Your task to perform on an android device: check the backup settings in the google photos Image 0: 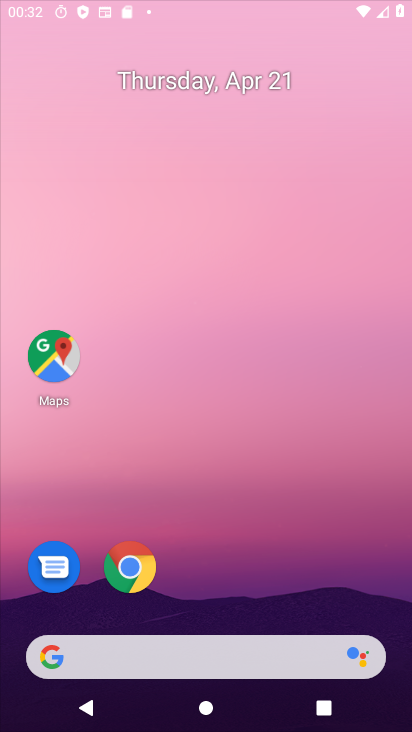
Step 0: drag from (215, 452) to (246, 172)
Your task to perform on an android device: check the backup settings in the google photos Image 1: 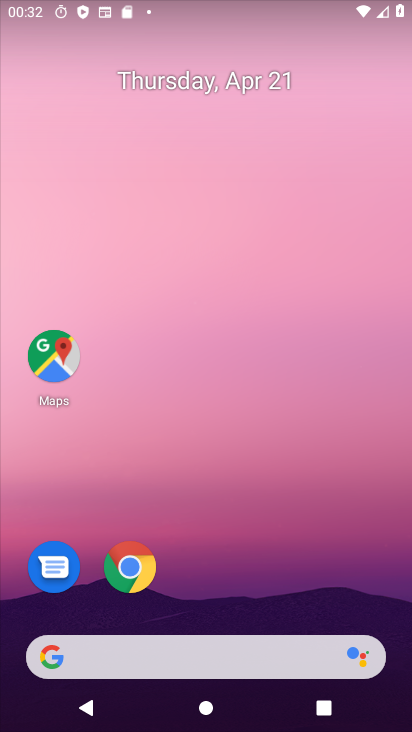
Step 1: drag from (239, 586) to (274, 116)
Your task to perform on an android device: check the backup settings in the google photos Image 2: 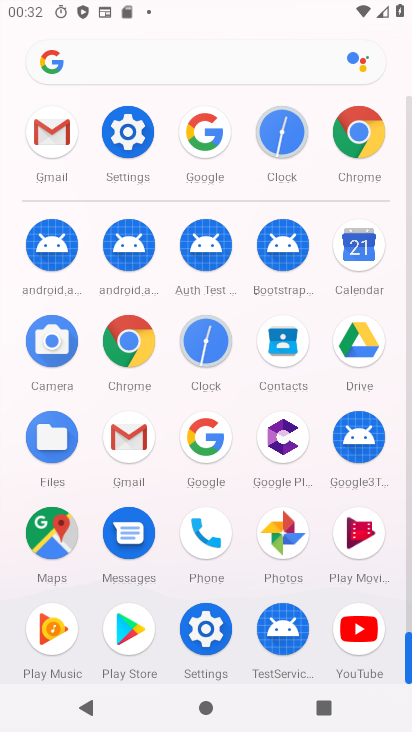
Step 2: click (287, 528)
Your task to perform on an android device: check the backup settings in the google photos Image 3: 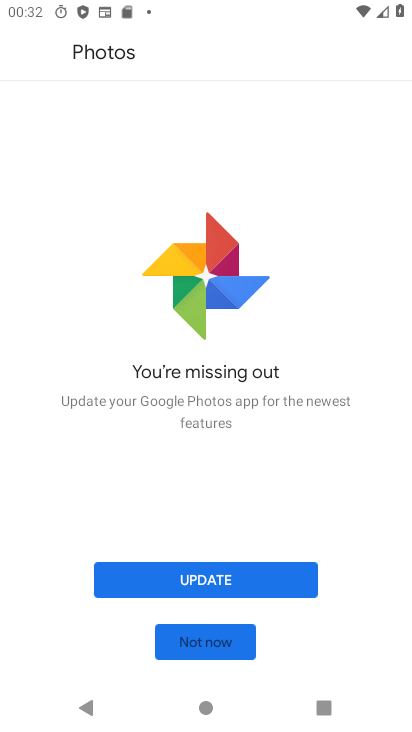
Step 3: click (201, 634)
Your task to perform on an android device: check the backup settings in the google photos Image 4: 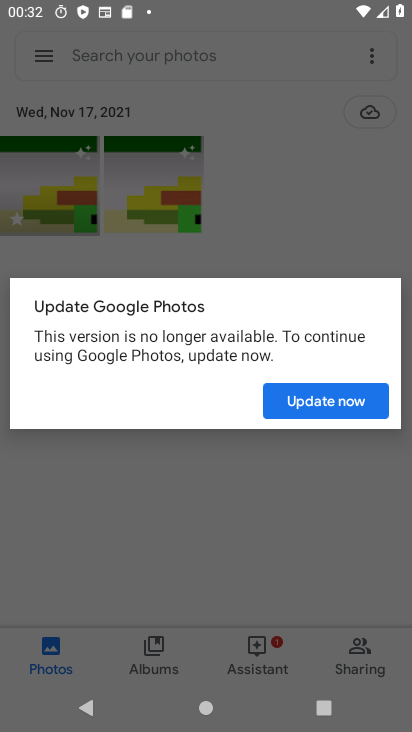
Step 4: click (334, 403)
Your task to perform on an android device: check the backup settings in the google photos Image 5: 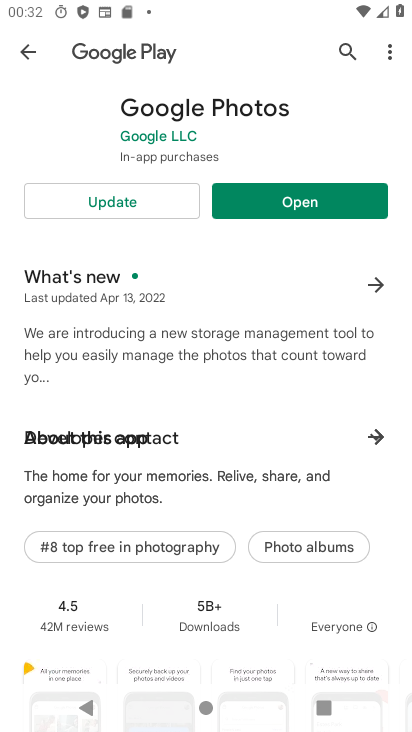
Step 5: press back button
Your task to perform on an android device: check the backup settings in the google photos Image 6: 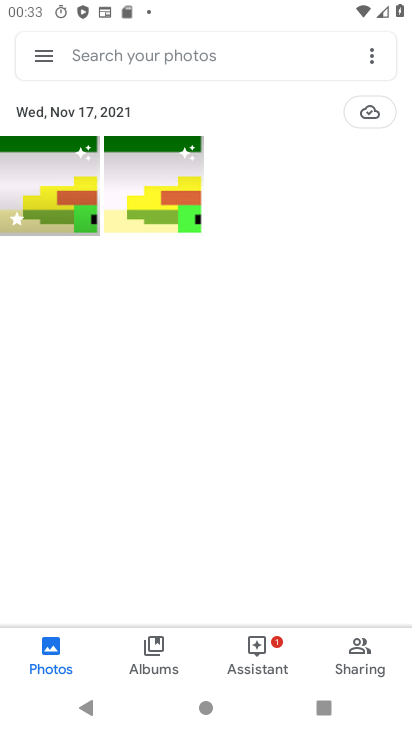
Step 6: click (35, 43)
Your task to perform on an android device: check the backup settings in the google photos Image 7: 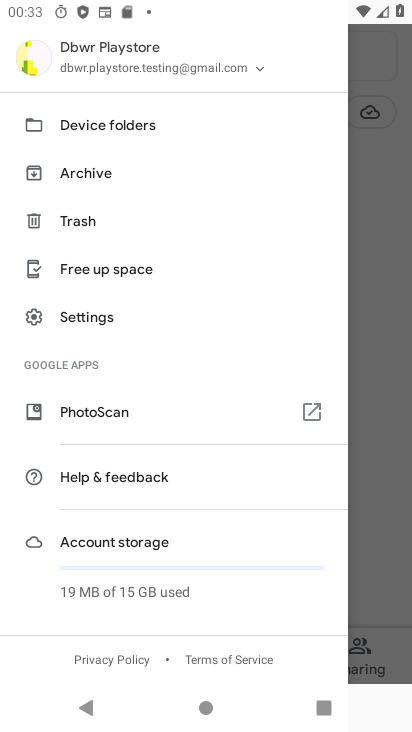
Step 7: click (107, 323)
Your task to perform on an android device: check the backup settings in the google photos Image 8: 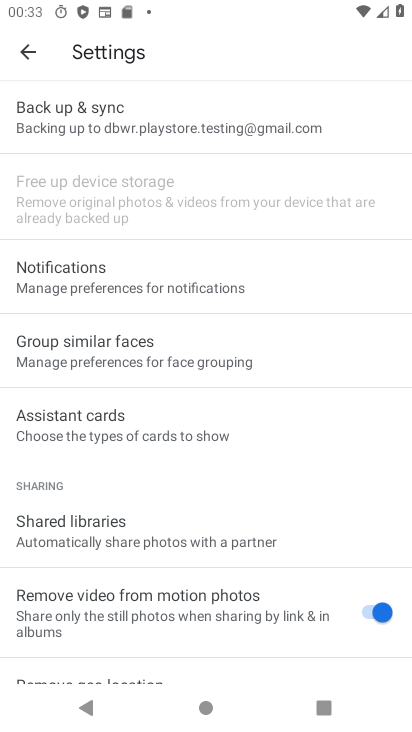
Step 8: click (155, 120)
Your task to perform on an android device: check the backup settings in the google photos Image 9: 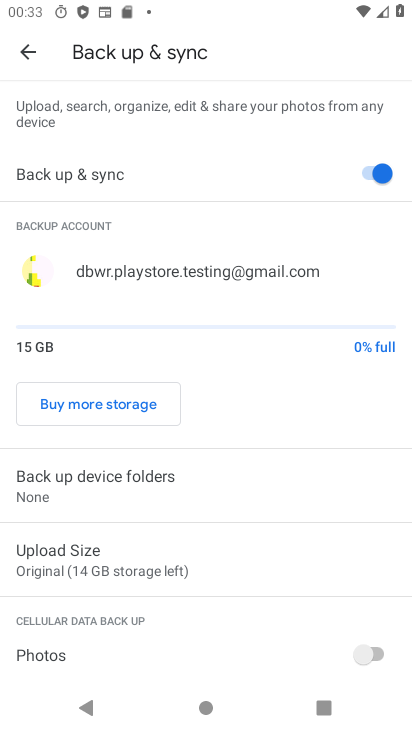
Step 9: task complete